Your task to perform on an android device: Go to battery settings Image 0: 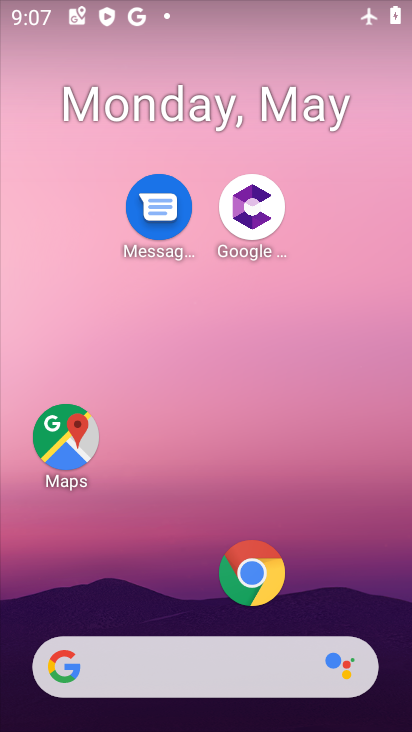
Step 0: drag from (169, 617) to (203, 76)
Your task to perform on an android device: Go to battery settings Image 1: 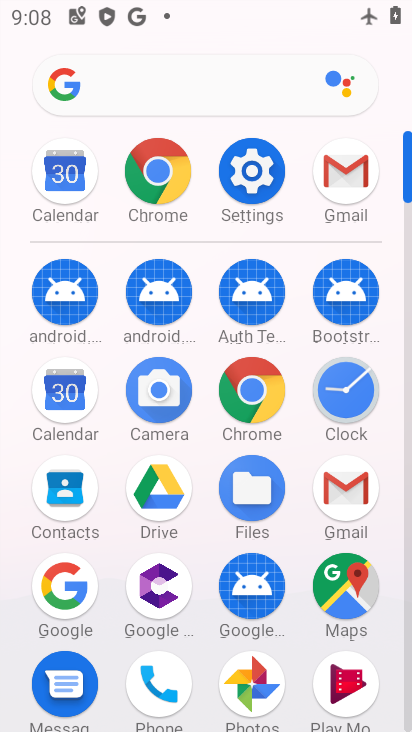
Step 1: click (258, 167)
Your task to perform on an android device: Go to battery settings Image 2: 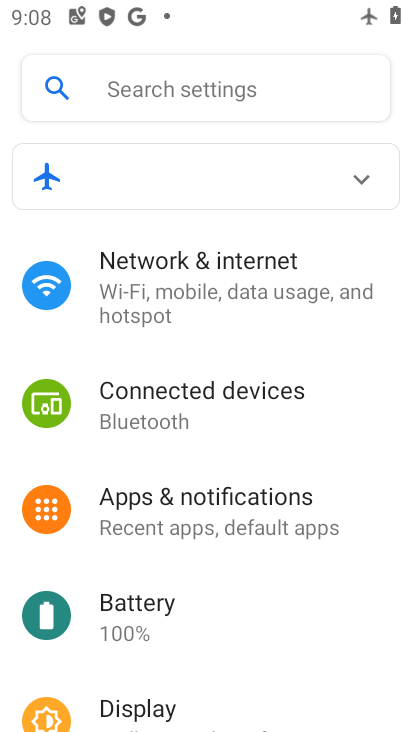
Step 2: click (184, 615)
Your task to perform on an android device: Go to battery settings Image 3: 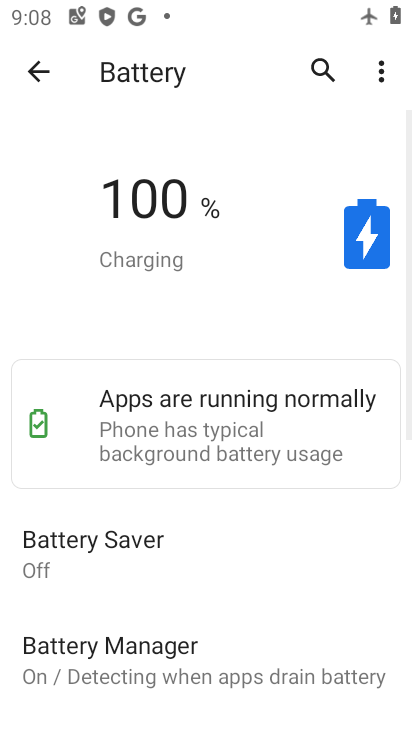
Step 3: task complete